Your task to perform on an android device: install app "Google Drive" Image 0: 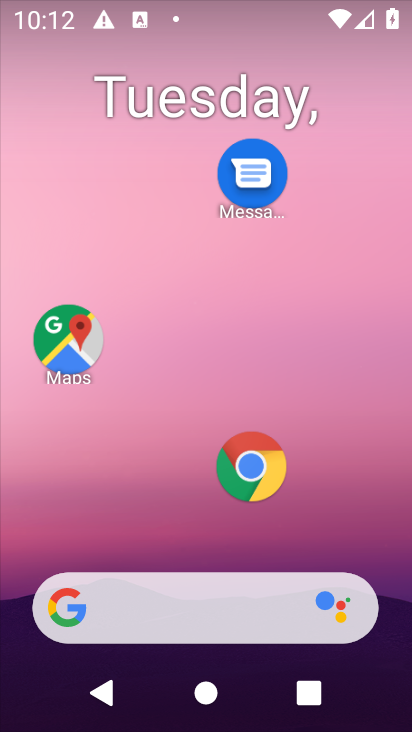
Step 0: drag from (116, 526) to (232, 18)
Your task to perform on an android device: install app "Google Drive" Image 1: 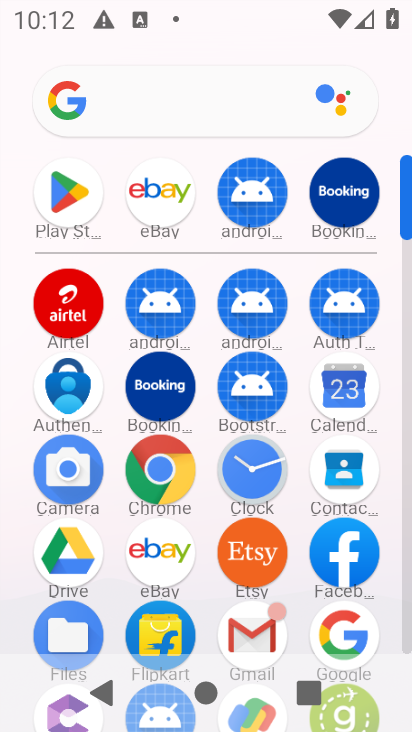
Step 1: click (92, 199)
Your task to perform on an android device: install app "Google Drive" Image 2: 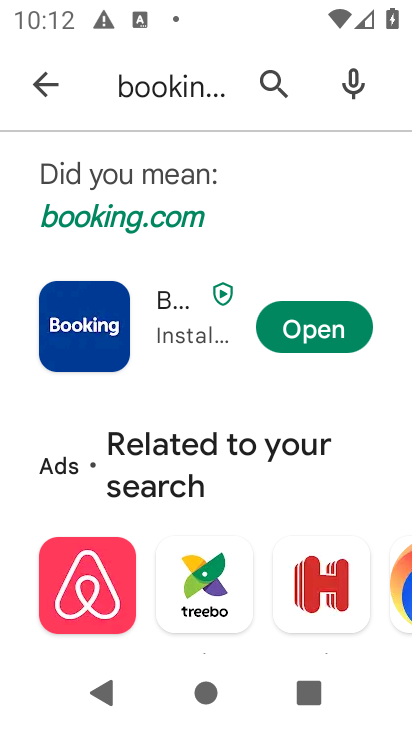
Step 2: click (268, 83)
Your task to perform on an android device: install app "Google Drive" Image 3: 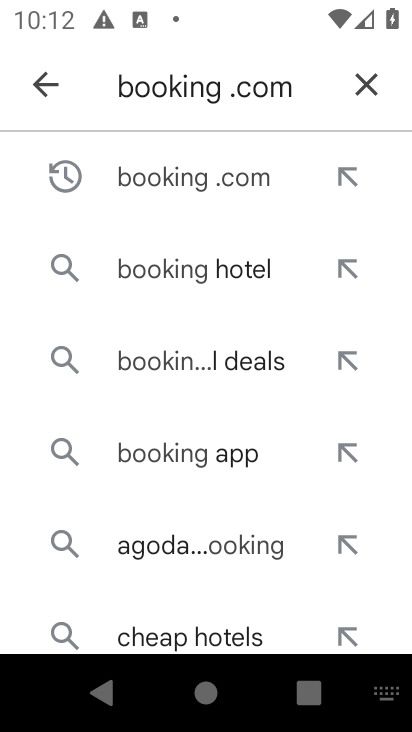
Step 3: click (361, 85)
Your task to perform on an android device: install app "Google Drive" Image 4: 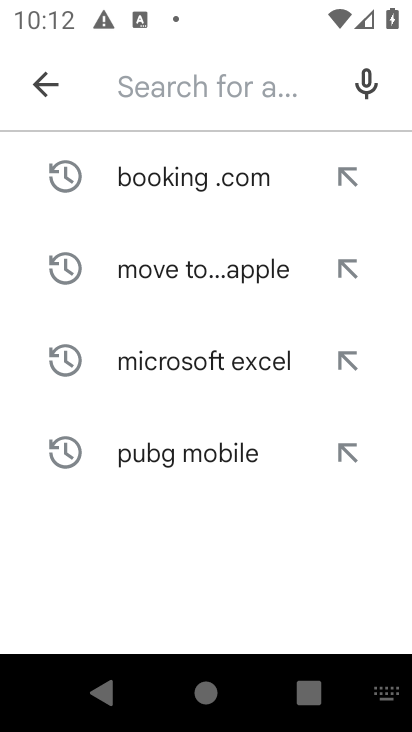
Step 4: click (152, 72)
Your task to perform on an android device: install app "Google Drive" Image 5: 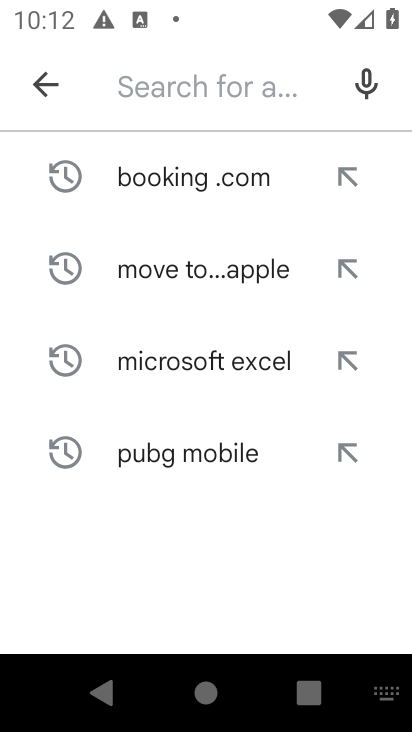
Step 5: type "Google Drive"
Your task to perform on an android device: install app "Google Drive" Image 6: 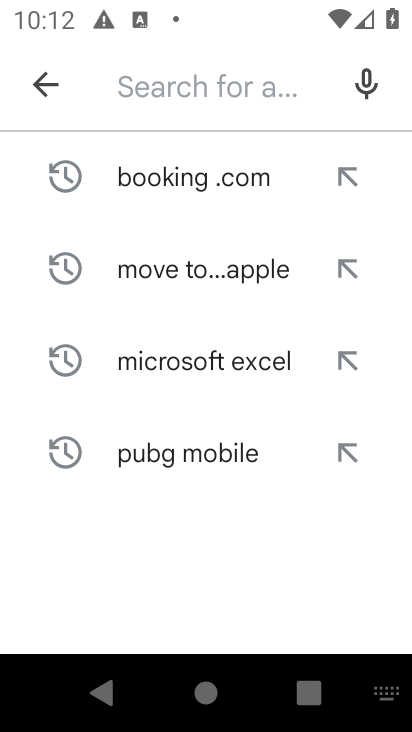
Step 6: click (240, 595)
Your task to perform on an android device: install app "Google Drive" Image 7: 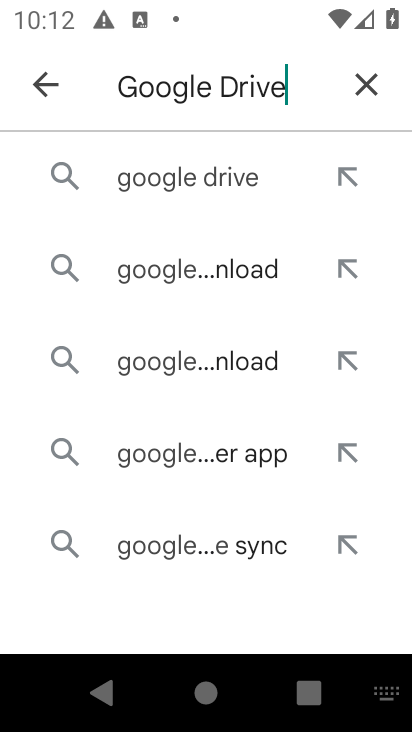
Step 7: click (175, 188)
Your task to perform on an android device: install app "Google Drive" Image 8: 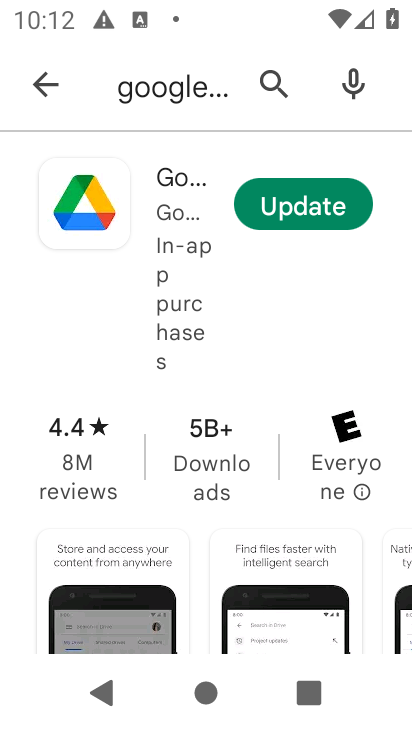
Step 8: click (200, 257)
Your task to perform on an android device: install app "Google Drive" Image 9: 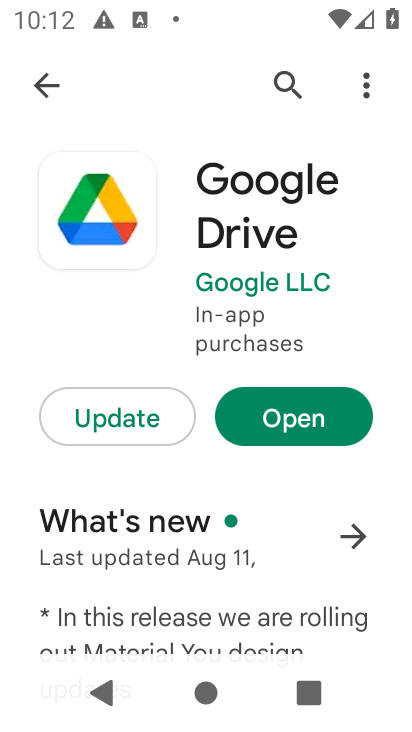
Step 9: task complete